Your task to perform on an android device: Open the phone app and click the voicemail tab. Image 0: 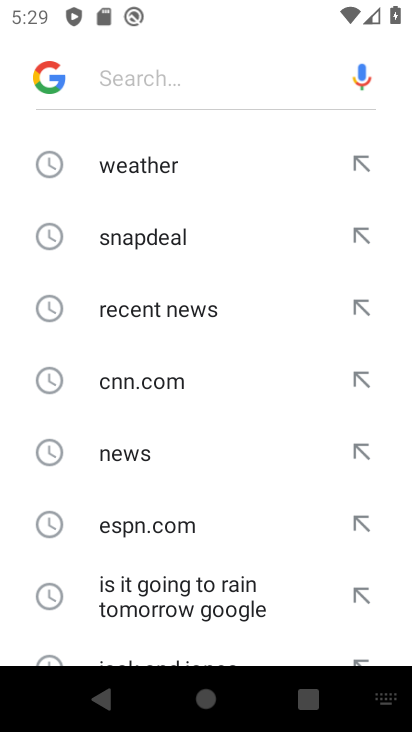
Step 0: press home button
Your task to perform on an android device: Open the phone app and click the voicemail tab. Image 1: 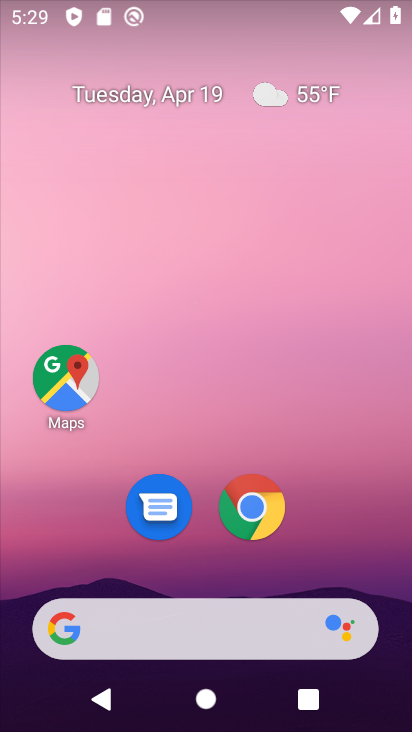
Step 1: drag from (225, 533) to (251, 355)
Your task to perform on an android device: Open the phone app and click the voicemail tab. Image 2: 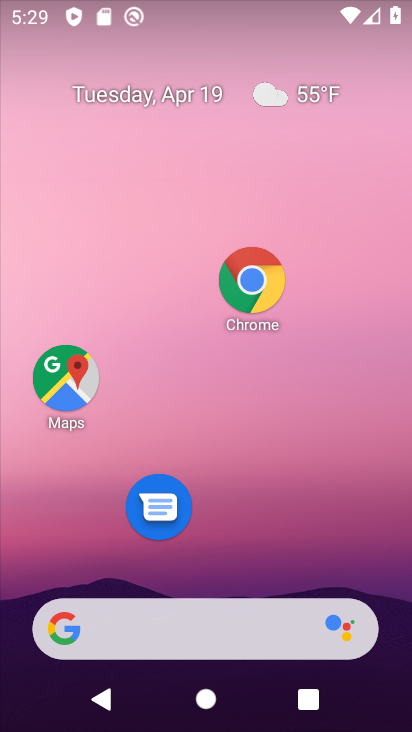
Step 2: drag from (192, 572) to (175, 239)
Your task to perform on an android device: Open the phone app and click the voicemail tab. Image 3: 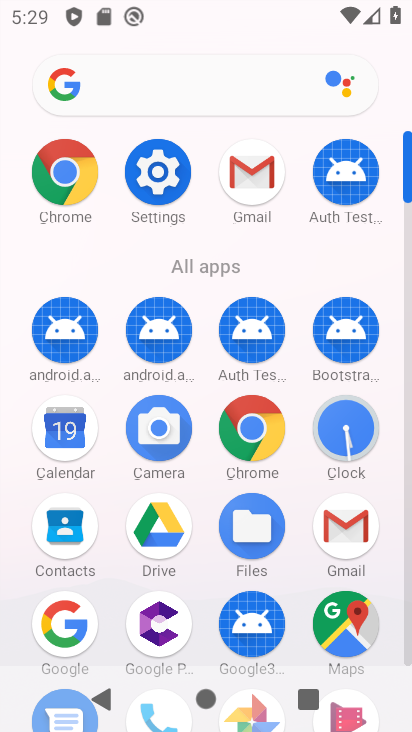
Step 3: drag from (200, 575) to (197, 324)
Your task to perform on an android device: Open the phone app and click the voicemail tab. Image 4: 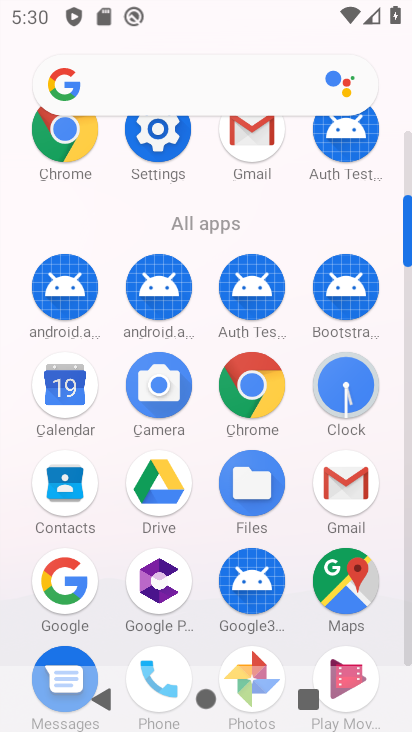
Step 4: drag from (183, 642) to (172, 292)
Your task to perform on an android device: Open the phone app and click the voicemail tab. Image 5: 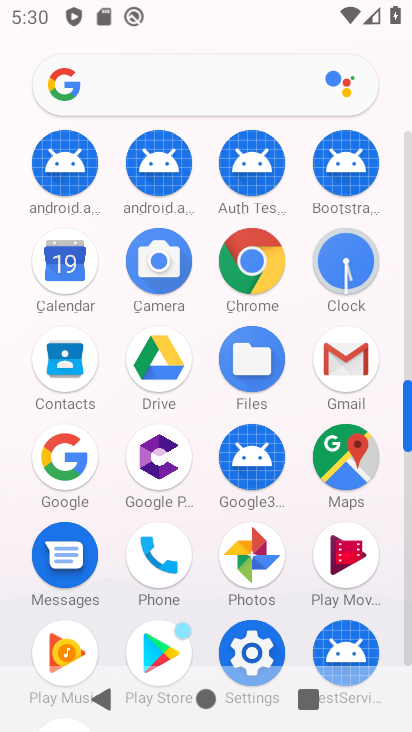
Step 5: click (151, 562)
Your task to perform on an android device: Open the phone app and click the voicemail tab. Image 6: 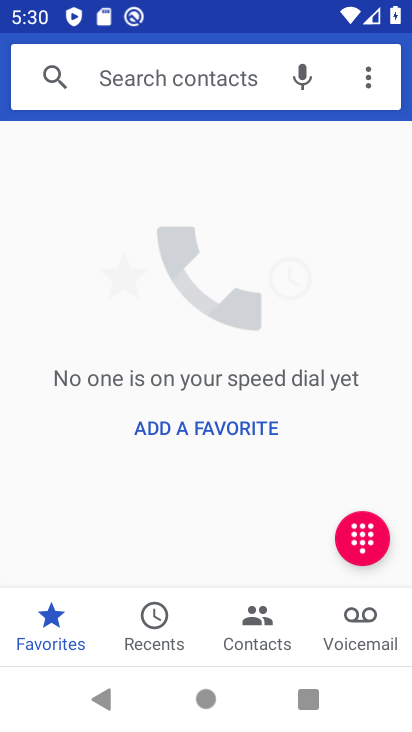
Step 6: click (362, 628)
Your task to perform on an android device: Open the phone app and click the voicemail tab. Image 7: 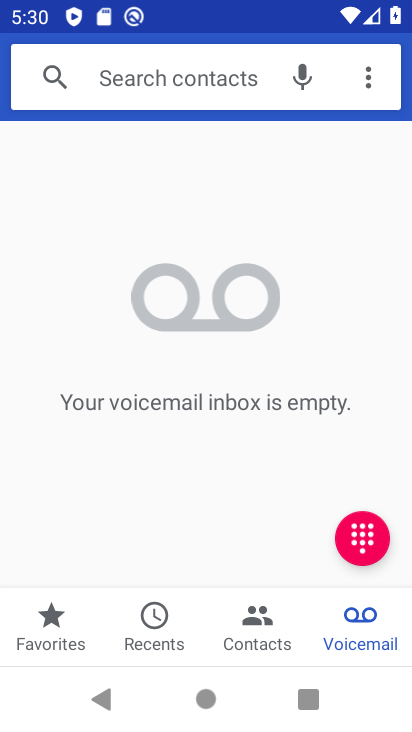
Step 7: task complete